Your task to perform on an android device: Search for "lg ultragear" on ebay.com, select the first entry, and add it to the cart. Image 0: 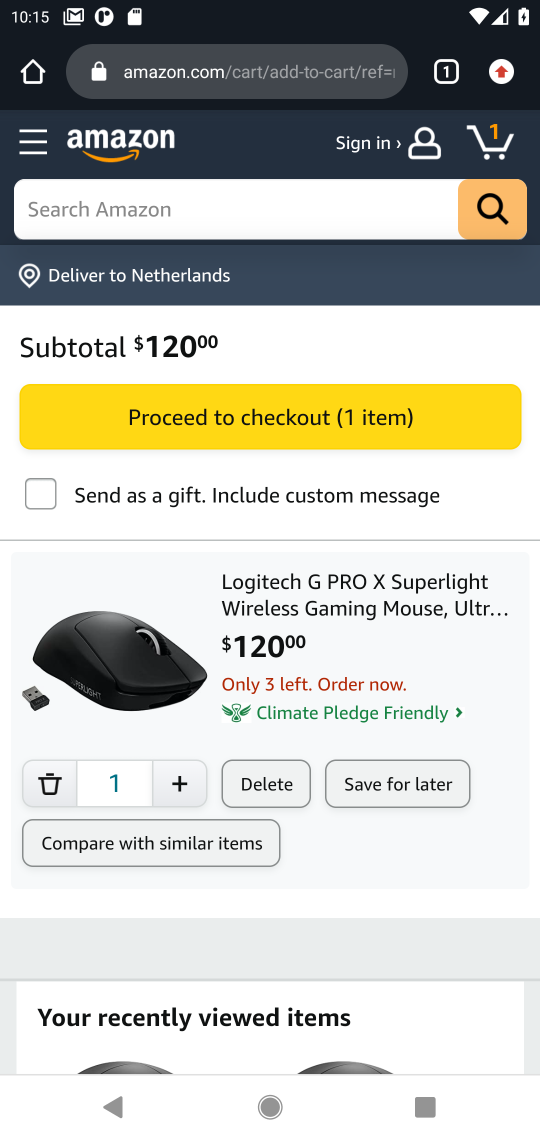
Step 0: click (243, 52)
Your task to perform on an android device: Search for "lg ultragear" on ebay.com, select the first entry, and add it to the cart. Image 1: 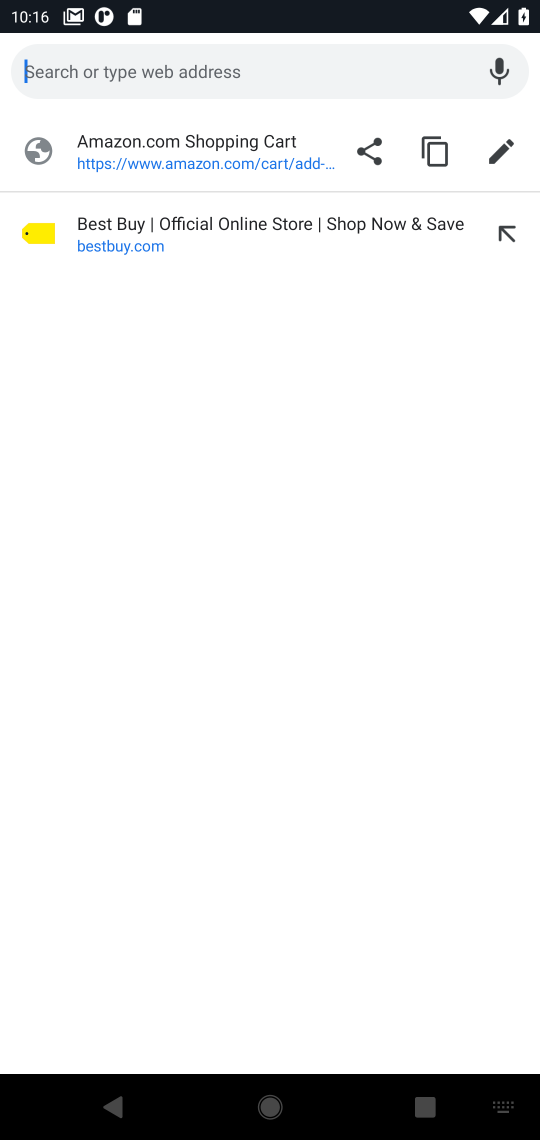
Step 1: type "ebay"
Your task to perform on an android device: Search for "lg ultragear" on ebay.com, select the first entry, and add it to the cart. Image 2: 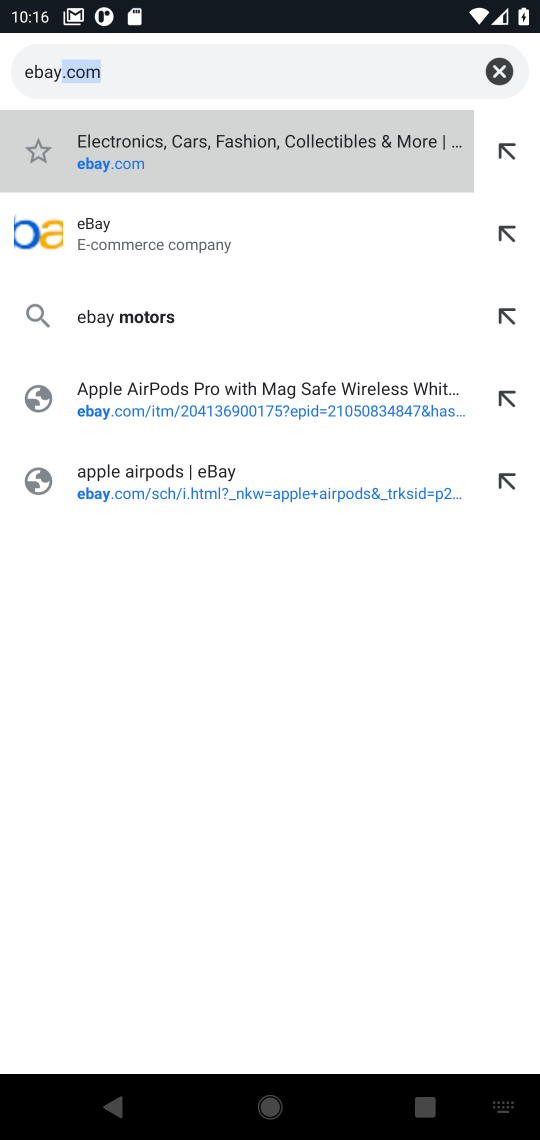
Step 2: click (108, 258)
Your task to perform on an android device: Search for "lg ultragear" on ebay.com, select the first entry, and add it to the cart. Image 3: 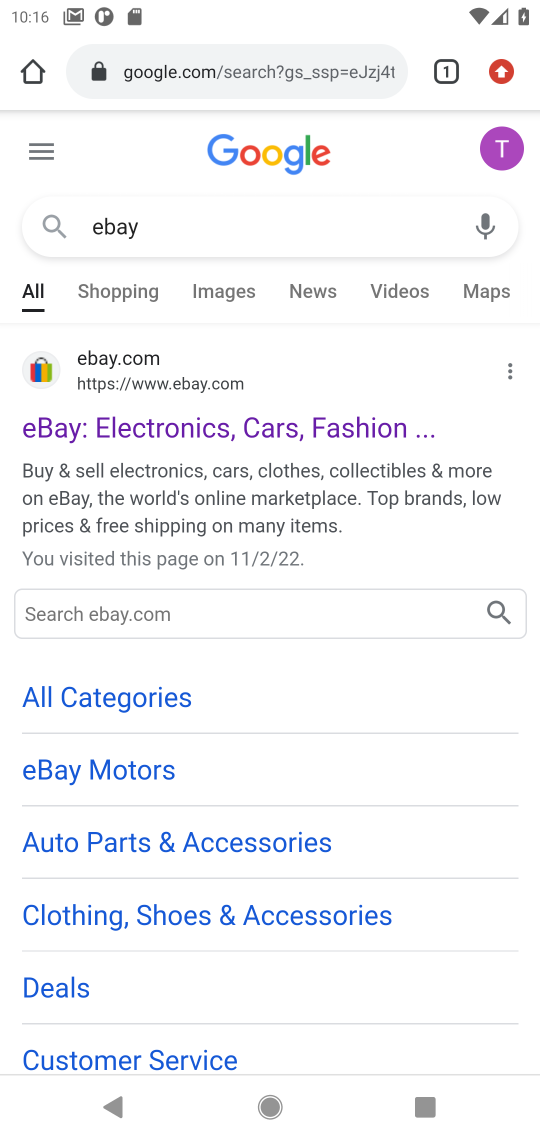
Step 3: click (124, 433)
Your task to perform on an android device: Search for "lg ultragear" on ebay.com, select the first entry, and add it to the cart. Image 4: 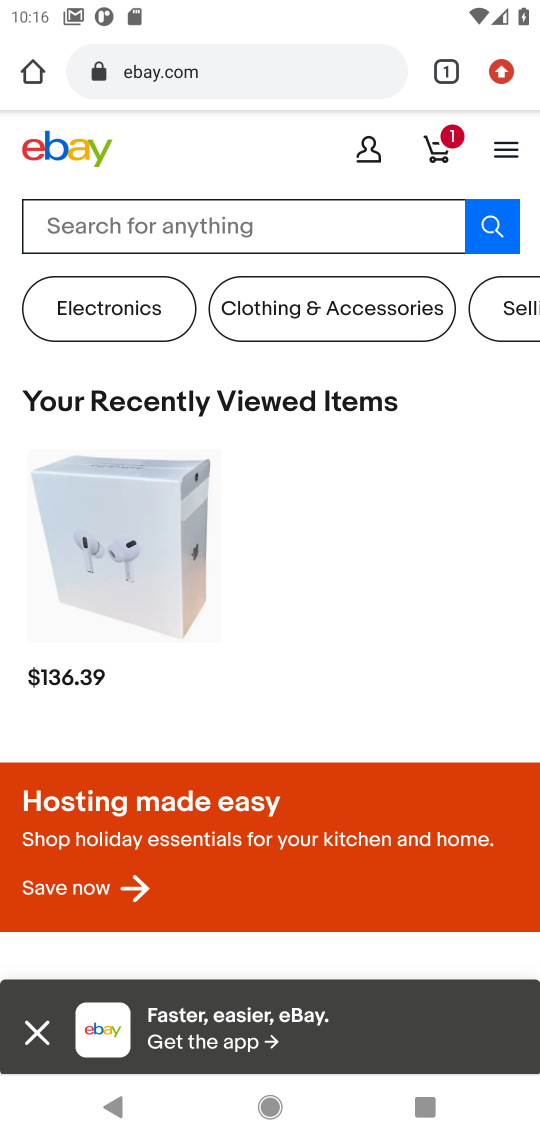
Step 4: click (374, 195)
Your task to perform on an android device: Search for "lg ultragear" on ebay.com, select the first entry, and add it to the cart. Image 5: 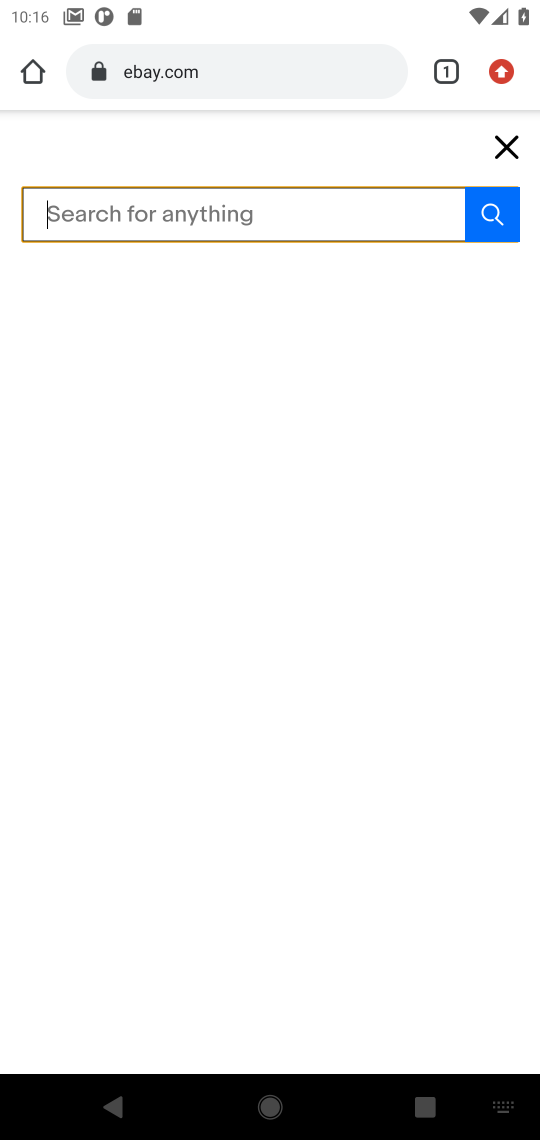
Step 5: type "lg ultragear"
Your task to perform on an android device: Search for "lg ultragear" on ebay.com, select the first entry, and add it to the cart. Image 6: 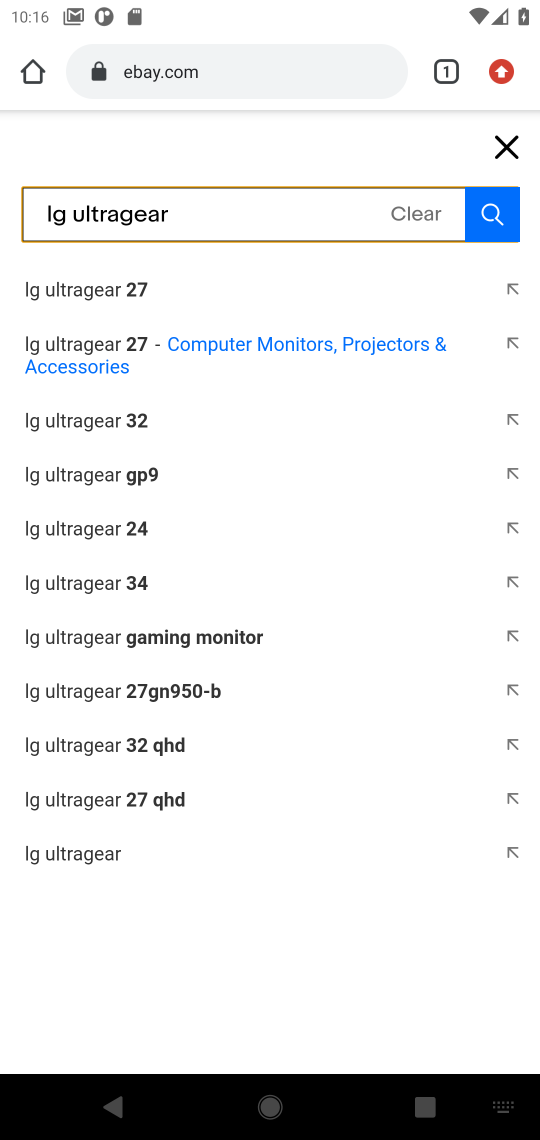
Step 6: click (503, 202)
Your task to perform on an android device: Search for "lg ultragear" on ebay.com, select the first entry, and add it to the cart. Image 7: 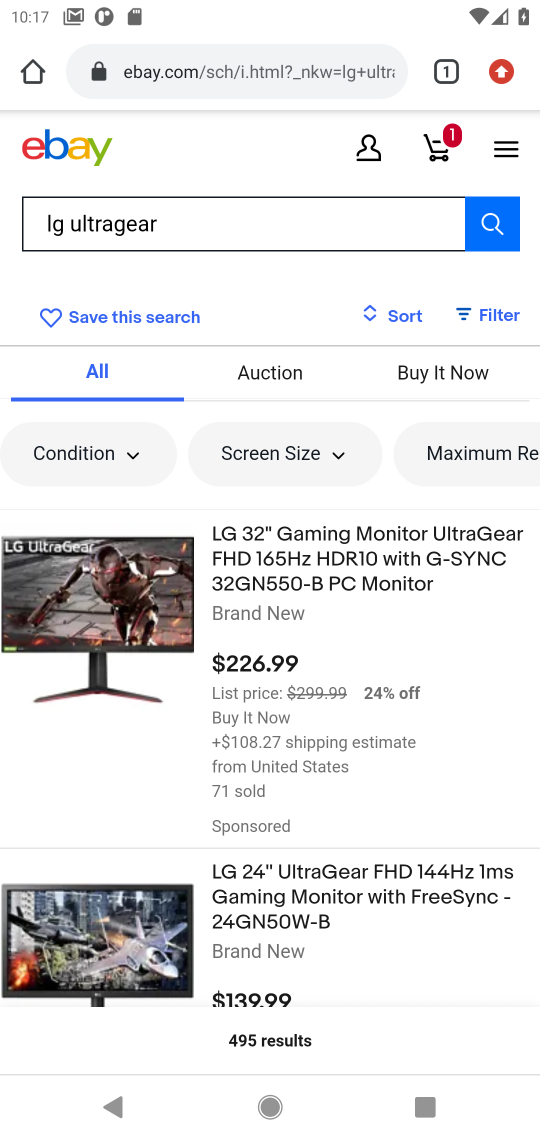
Step 7: click (263, 576)
Your task to perform on an android device: Search for "lg ultragear" on ebay.com, select the first entry, and add it to the cart. Image 8: 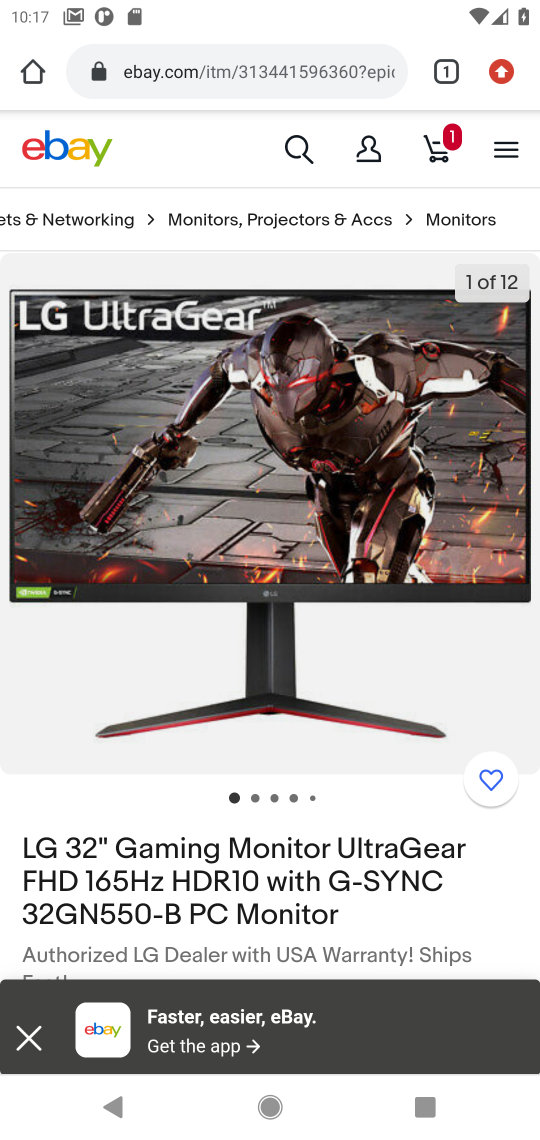
Step 8: drag from (293, 980) to (334, 256)
Your task to perform on an android device: Search for "lg ultragear" on ebay.com, select the first entry, and add it to the cart. Image 9: 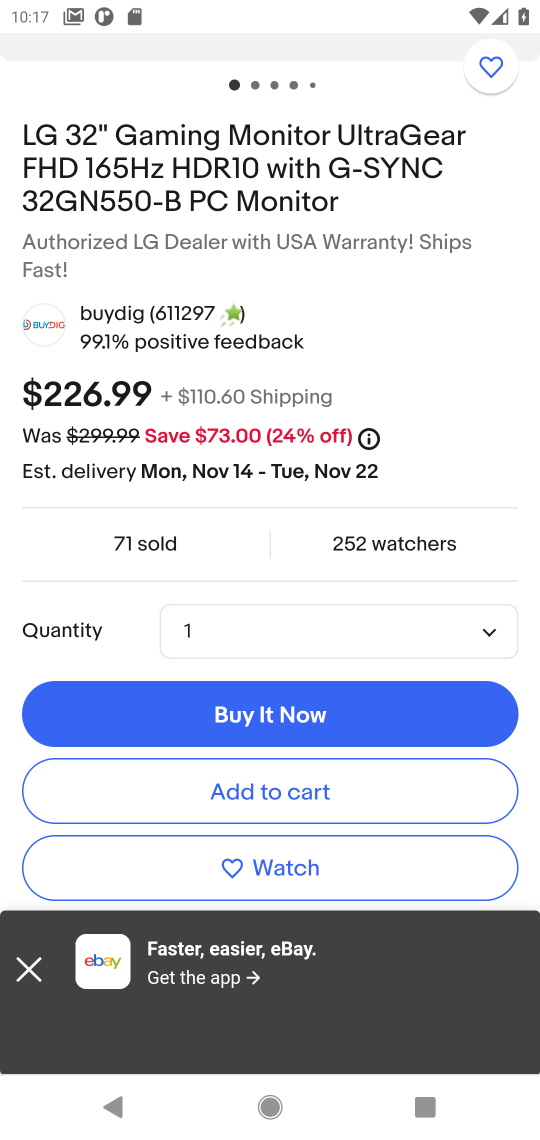
Step 9: click (180, 815)
Your task to perform on an android device: Search for "lg ultragear" on ebay.com, select the first entry, and add it to the cart. Image 10: 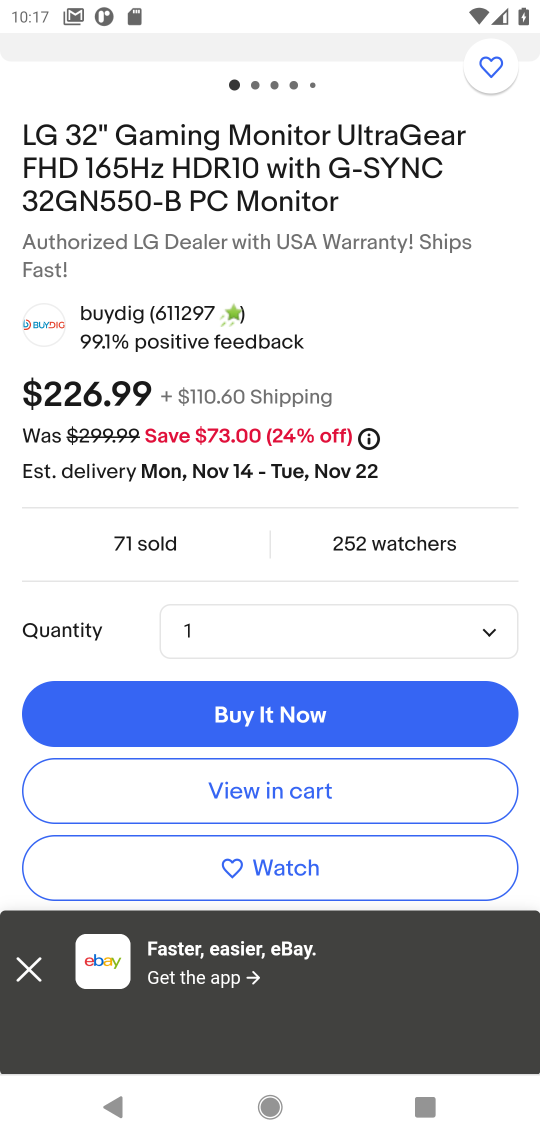
Step 10: task complete